Your task to perform on an android device: move an email to a new category in the gmail app Image 0: 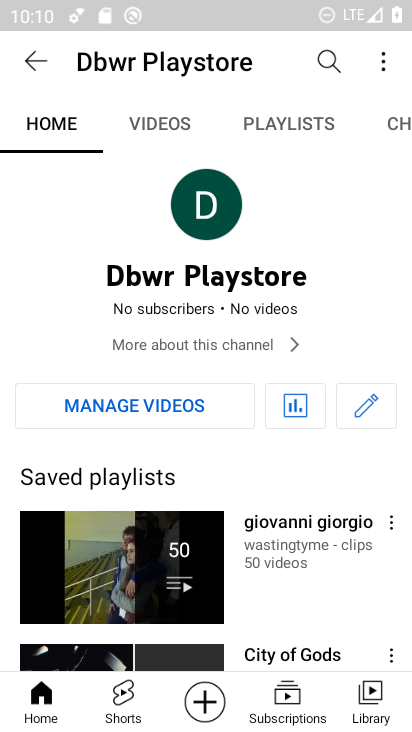
Step 0: press home button
Your task to perform on an android device: move an email to a new category in the gmail app Image 1: 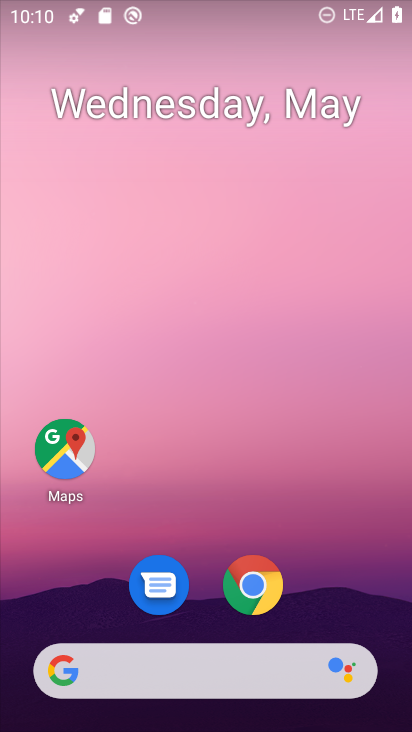
Step 1: drag from (226, 511) to (214, 70)
Your task to perform on an android device: move an email to a new category in the gmail app Image 2: 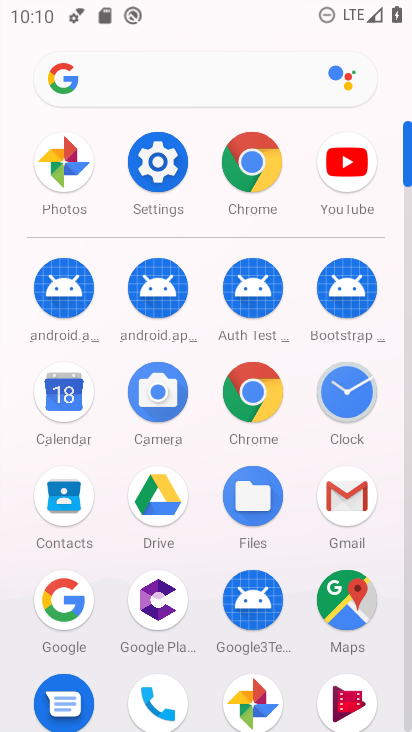
Step 2: click (336, 496)
Your task to perform on an android device: move an email to a new category in the gmail app Image 3: 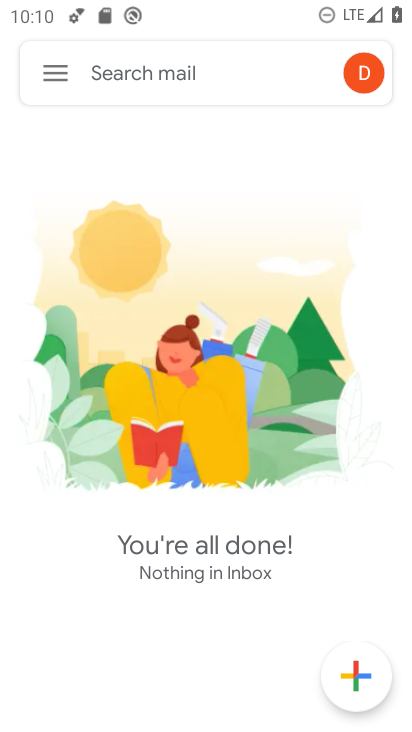
Step 3: click (65, 71)
Your task to perform on an android device: move an email to a new category in the gmail app Image 4: 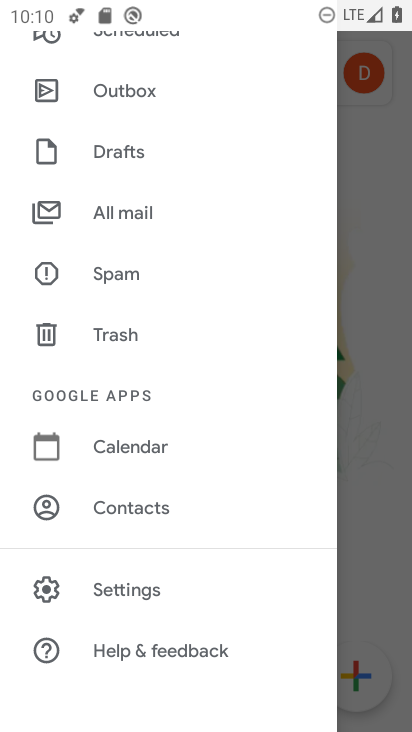
Step 4: click (122, 208)
Your task to perform on an android device: move an email to a new category in the gmail app Image 5: 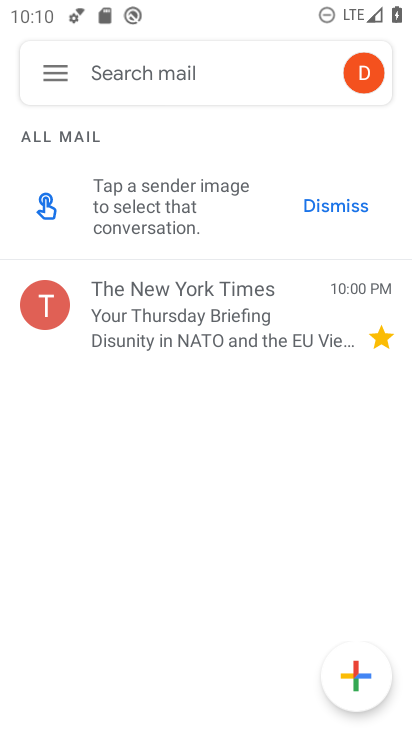
Step 5: click (196, 306)
Your task to perform on an android device: move an email to a new category in the gmail app Image 6: 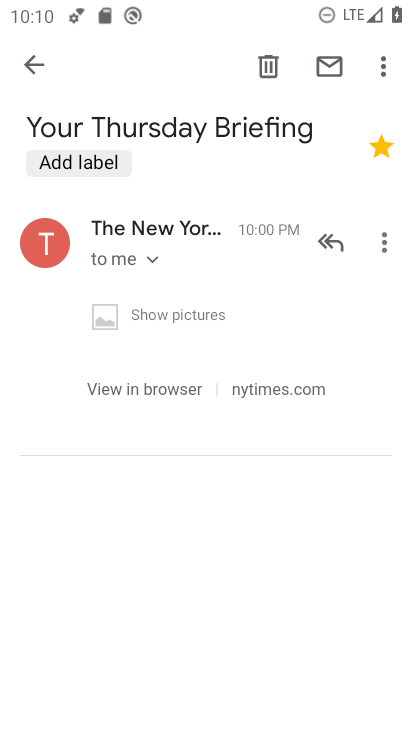
Step 6: click (383, 66)
Your task to perform on an android device: move an email to a new category in the gmail app Image 7: 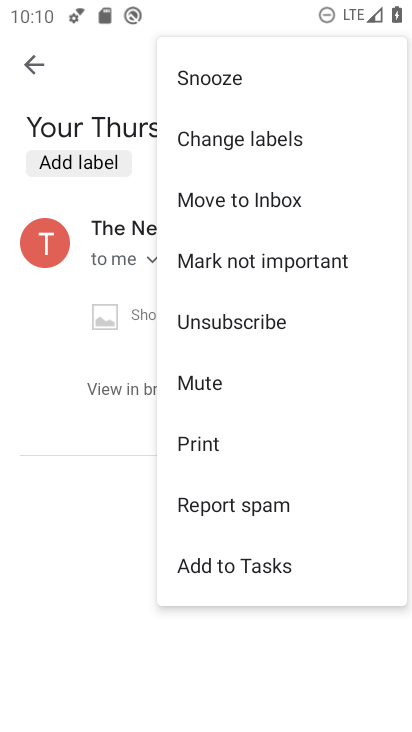
Step 7: click (298, 139)
Your task to perform on an android device: move an email to a new category in the gmail app Image 8: 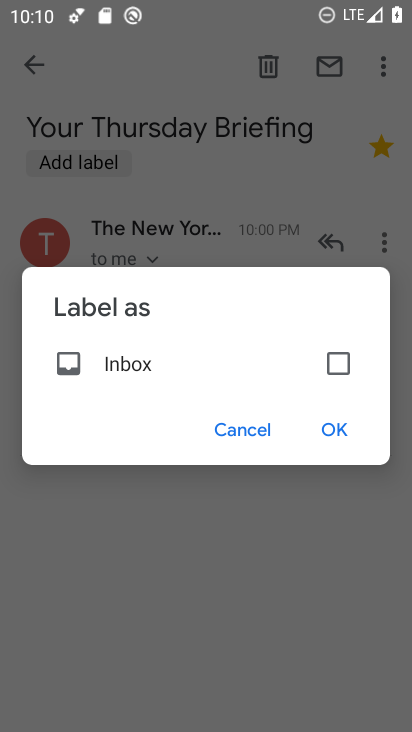
Step 8: click (347, 364)
Your task to perform on an android device: move an email to a new category in the gmail app Image 9: 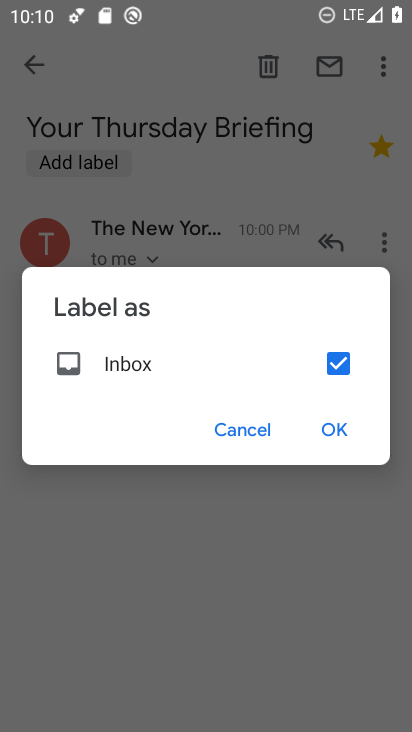
Step 9: click (338, 430)
Your task to perform on an android device: move an email to a new category in the gmail app Image 10: 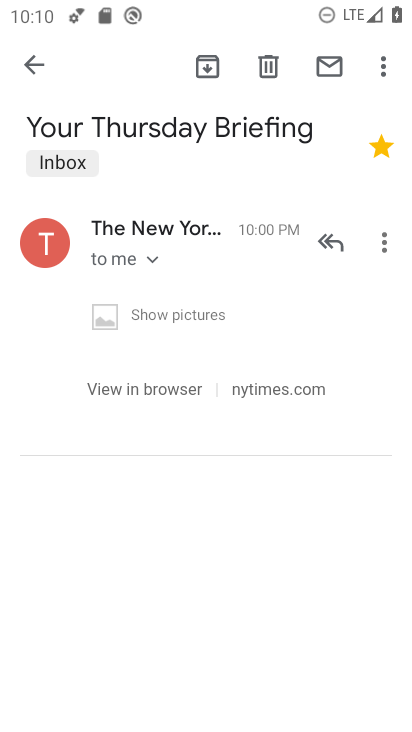
Step 10: task complete